Your task to perform on an android device: Search for usb-c to usb-b on bestbuy, select the first entry, add it to the cart, then select checkout. Image 0: 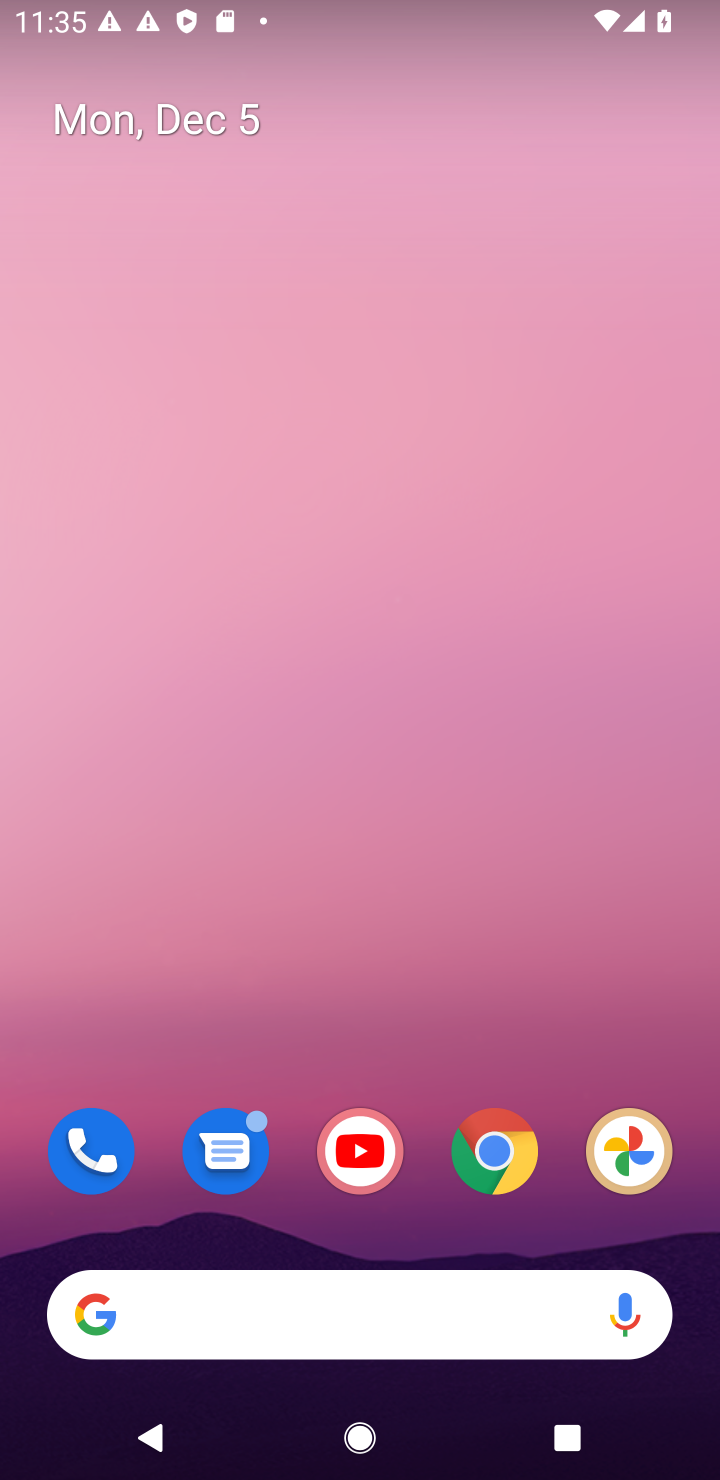
Step 0: click (494, 1155)
Your task to perform on an android device: Search for usb-c to usb-b on bestbuy, select the first entry, add it to the cart, then select checkout. Image 1: 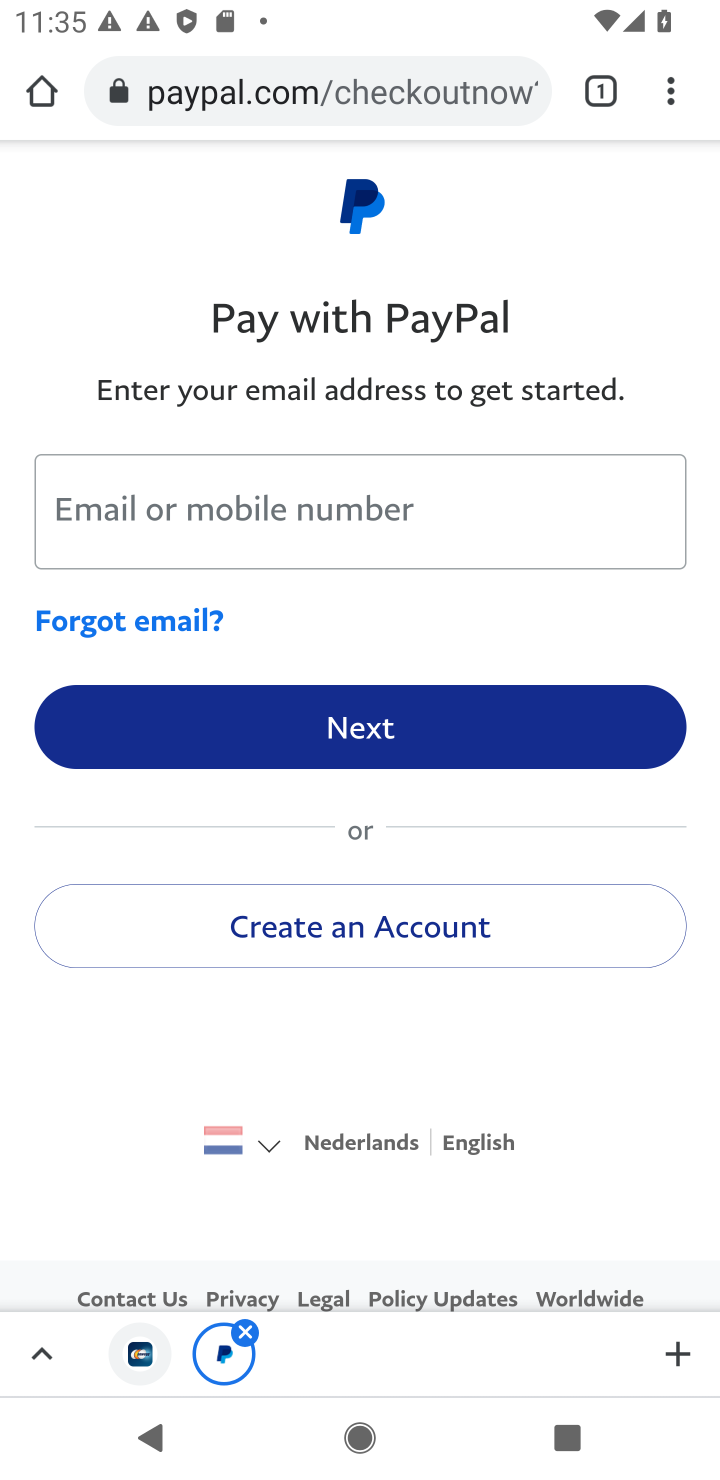
Step 1: click (248, 99)
Your task to perform on an android device: Search for usb-c to usb-b on bestbuy, select the first entry, add it to the cart, then select checkout. Image 2: 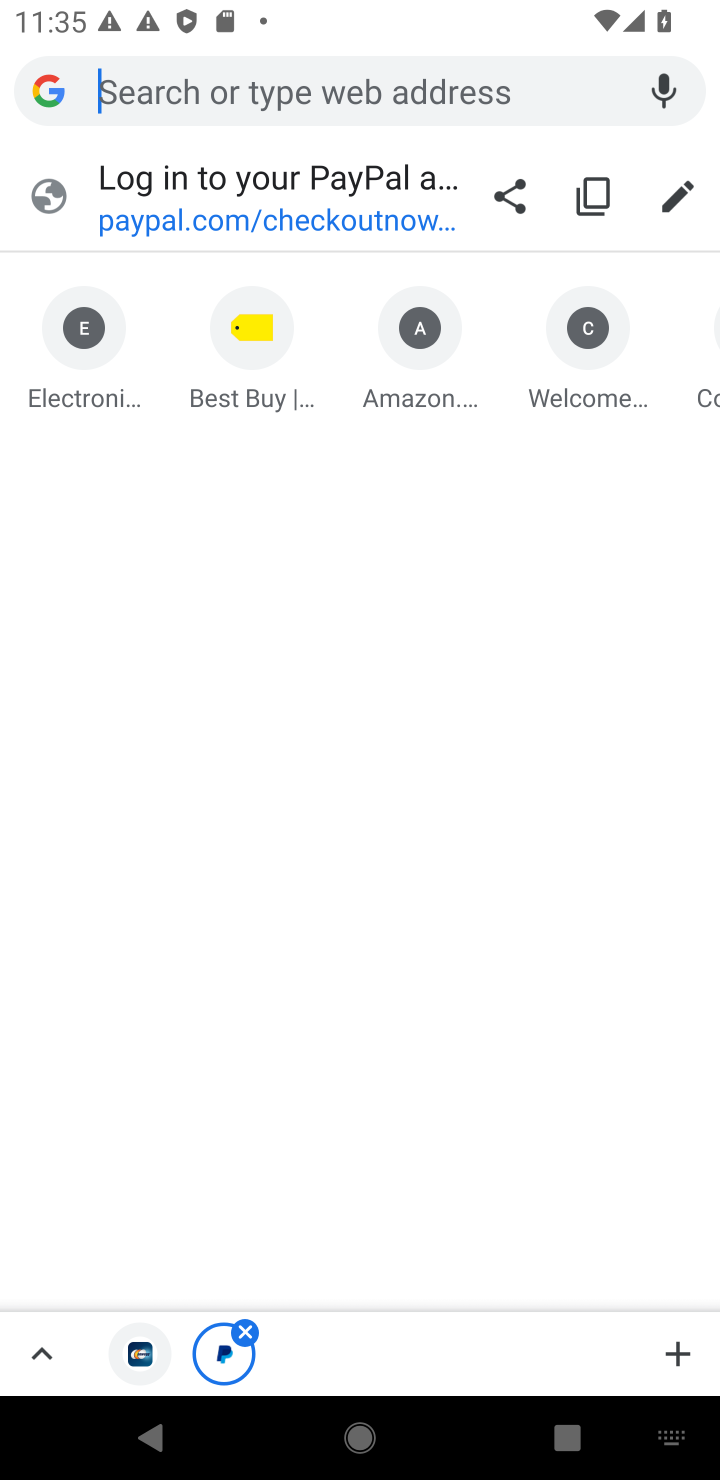
Step 2: click (228, 344)
Your task to perform on an android device: Search for usb-c to usb-b on bestbuy, select the first entry, add it to the cart, then select checkout. Image 3: 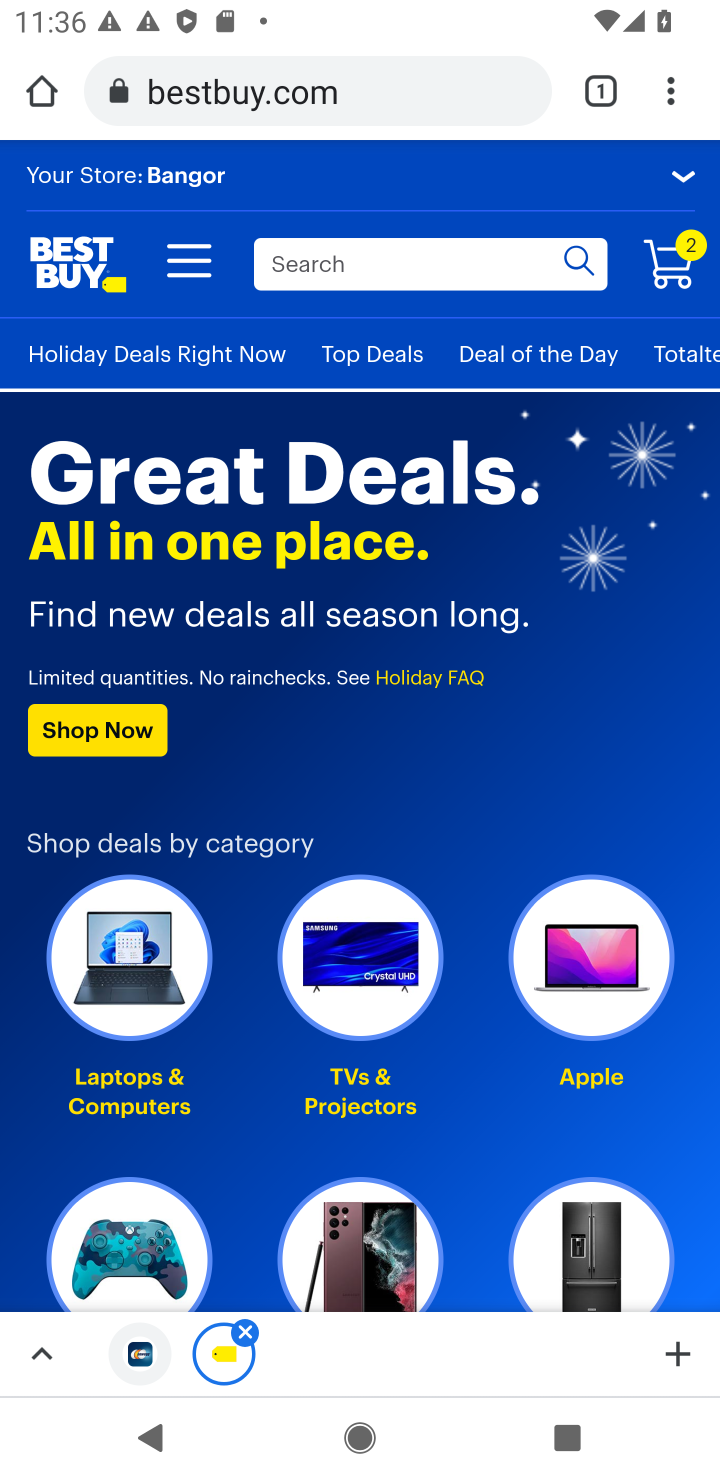
Step 3: click (351, 263)
Your task to perform on an android device: Search for usb-c to usb-b on bestbuy, select the first entry, add it to the cart, then select checkout. Image 4: 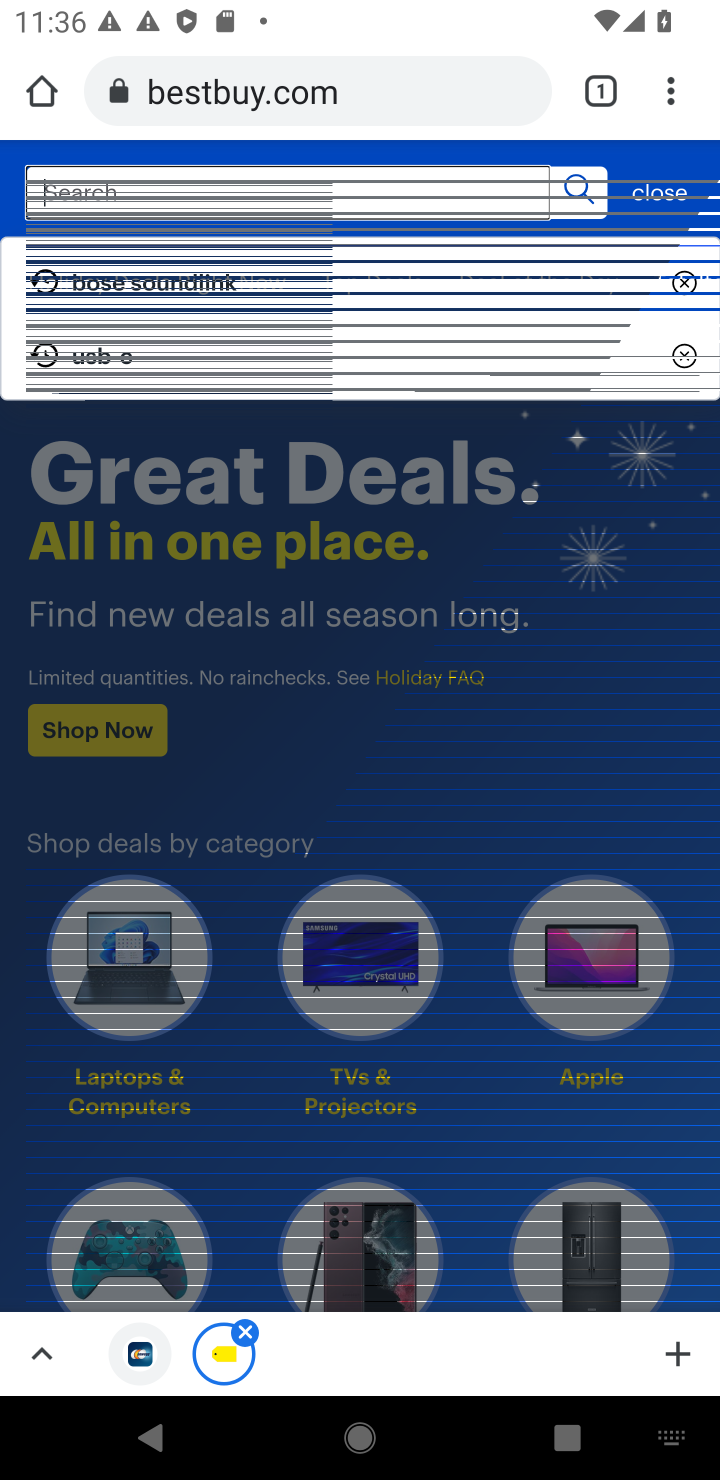
Step 4: type "usb-c to usb-b"
Your task to perform on an android device: Search for usb-c to usb-b on bestbuy, select the first entry, add it to the cart, then select checkout. Image 5: 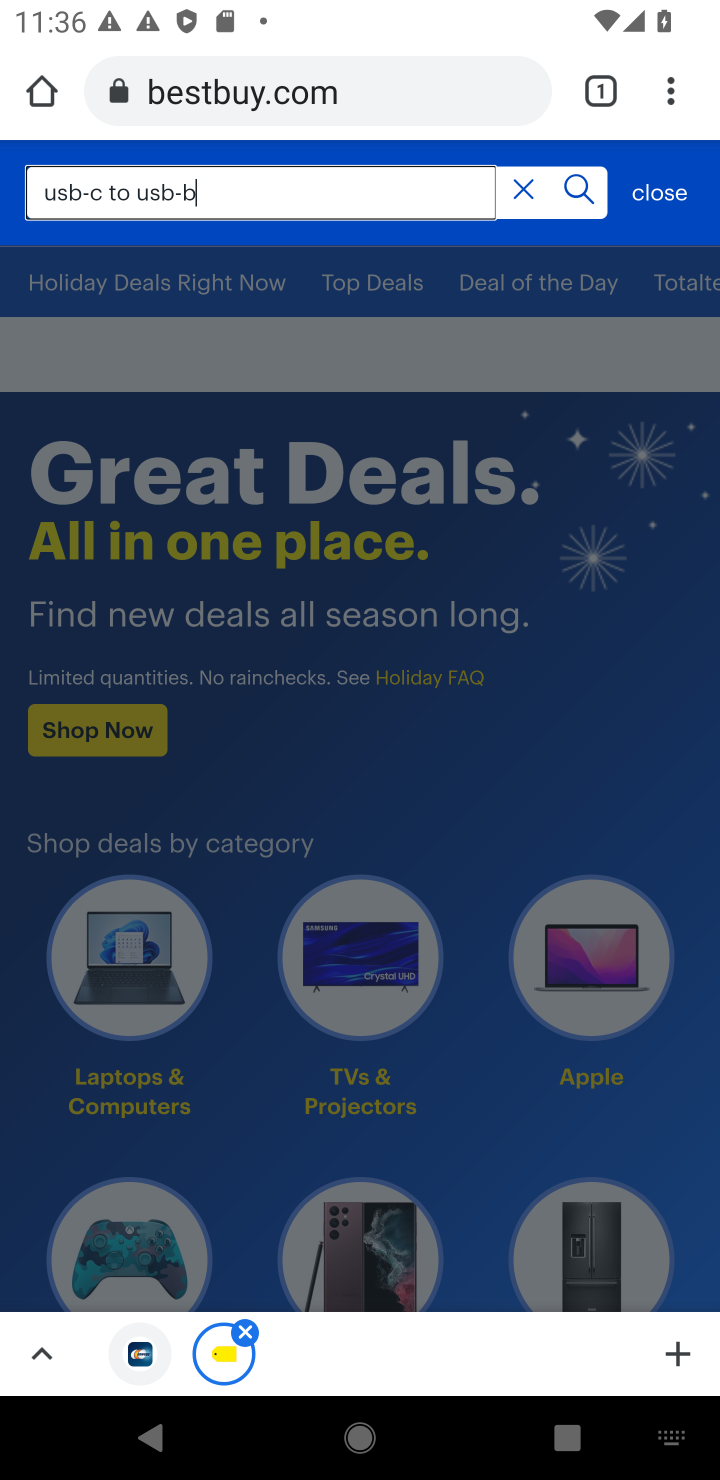
Step 5: click (583, 189)
Your task to perform on an android device: Search for usb-c to usb-b on bestbuy, select the first entry, add it to the cart, then select checkout. Image 6: 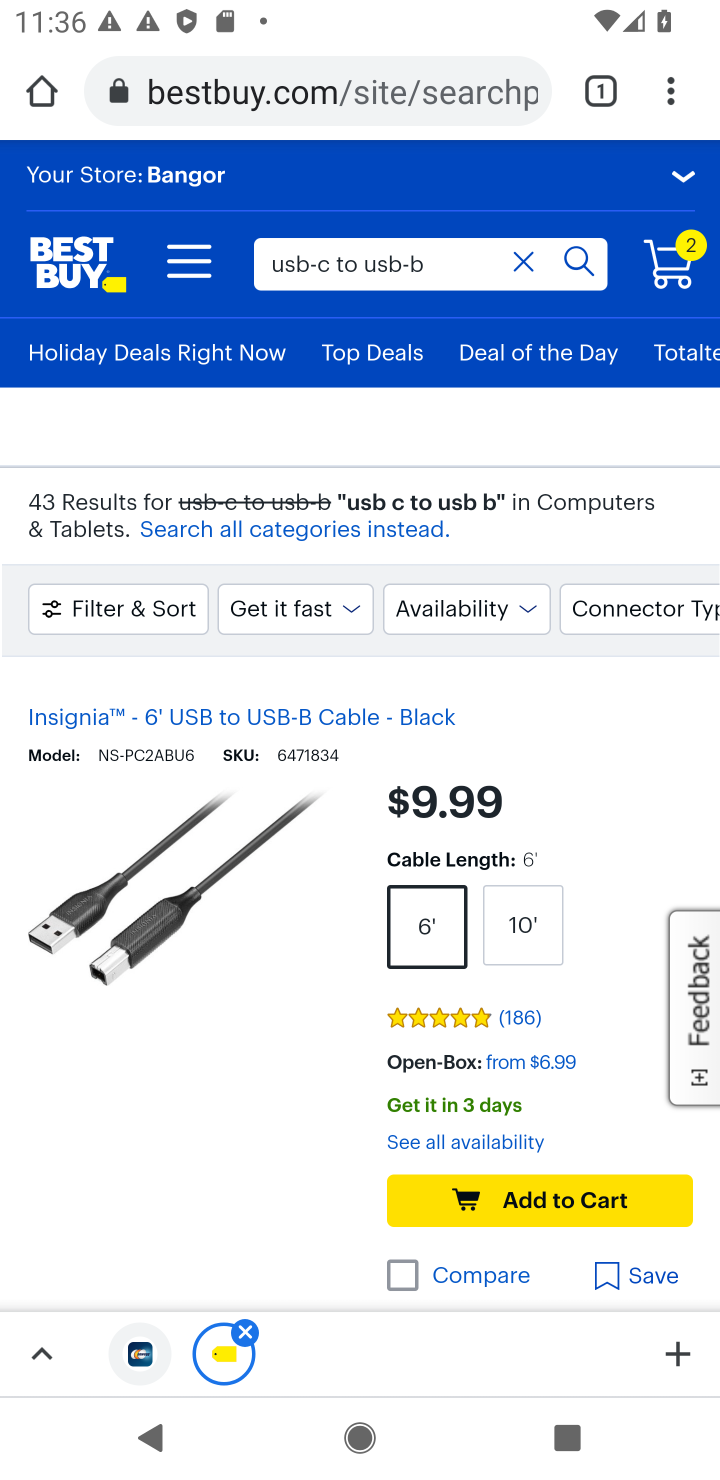
Step 6: task complete